Your task to perform on an android device: turn on airplane mode Image 0: 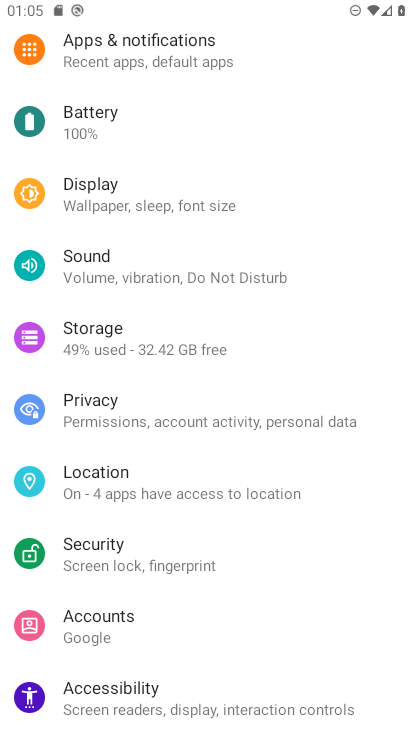
Step 0: press home button
Your task to perform on an android device: turn on airplane mode Image 1: 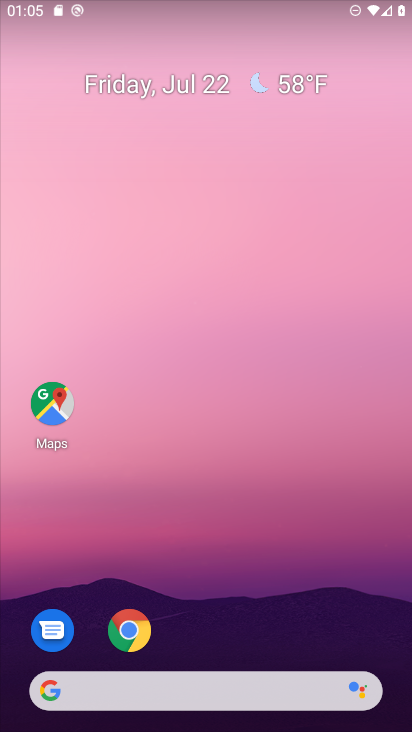
Step 1: drag from (330, 6) to (306, 396)
Your task to perform on an android device: turn on airplane mode Image 2: 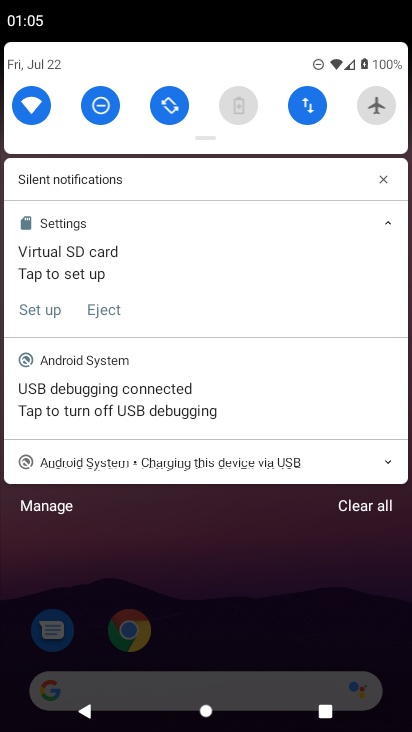
Step 2: click (364, 104)
Your task to perform on an android device: turn on airplane mode Image 3: 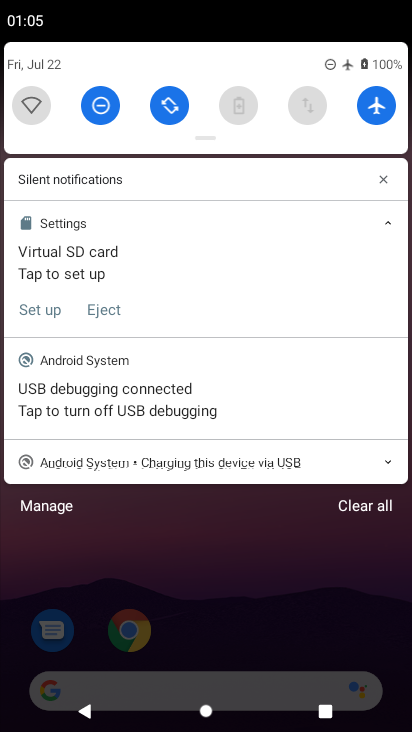
Step 3: task complete